Your task to perform on an android device: open app "Adobe Acrobat Reader" (install if not already installed) Image 0: 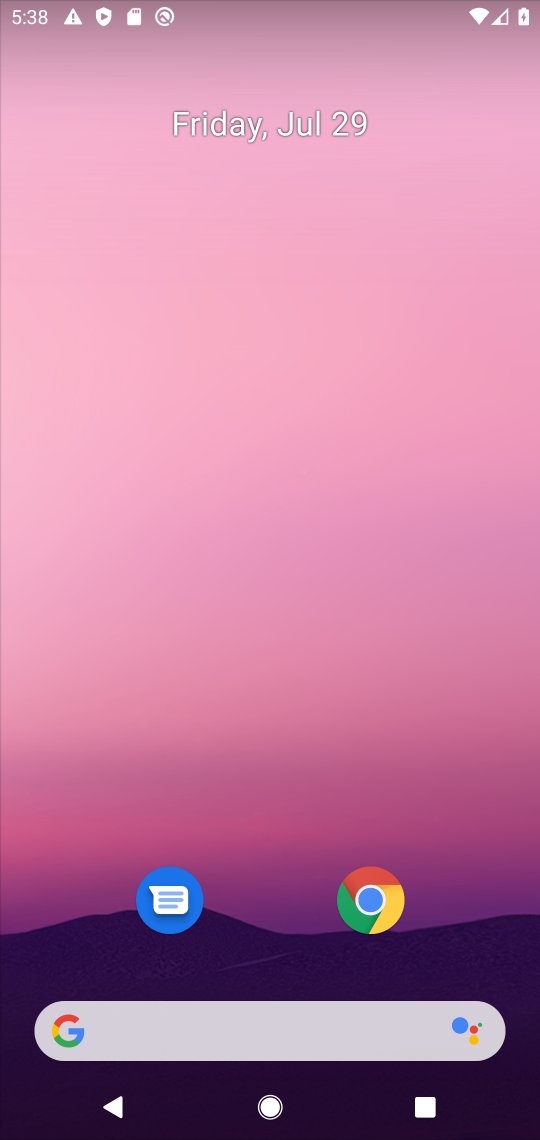
Step 0: drag from (299, 1009) to (271, 111)
Your task to perform on an android device: open app "Adobe Acrobat Reader" (install if not already installed) Image 1: 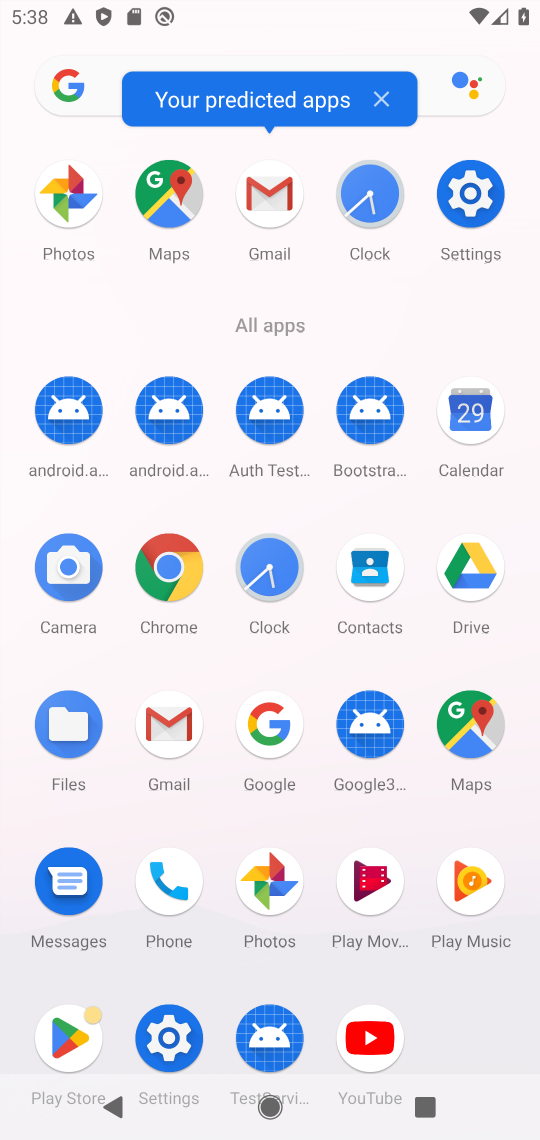
Step 1: click (56, 1025)
Your task to perform on an android device: open app "Adobe Acrobat Reader" (install if not already installed) Image 2: 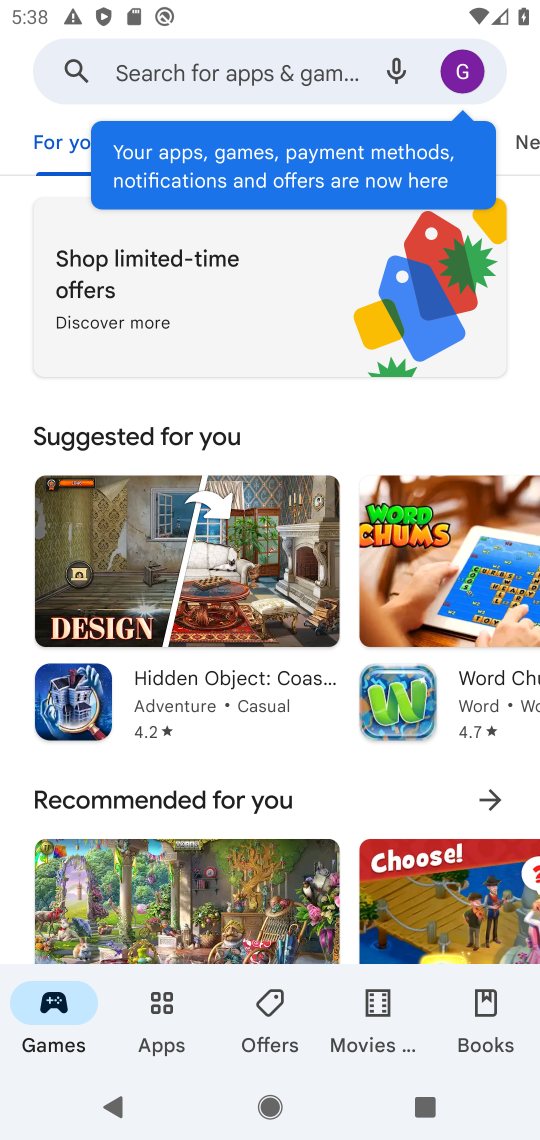
Step 2: click (291, 58)
Your task to perform on an android device: open app "Adobe Acrobat Reader" (install if not already installed) Image 3: 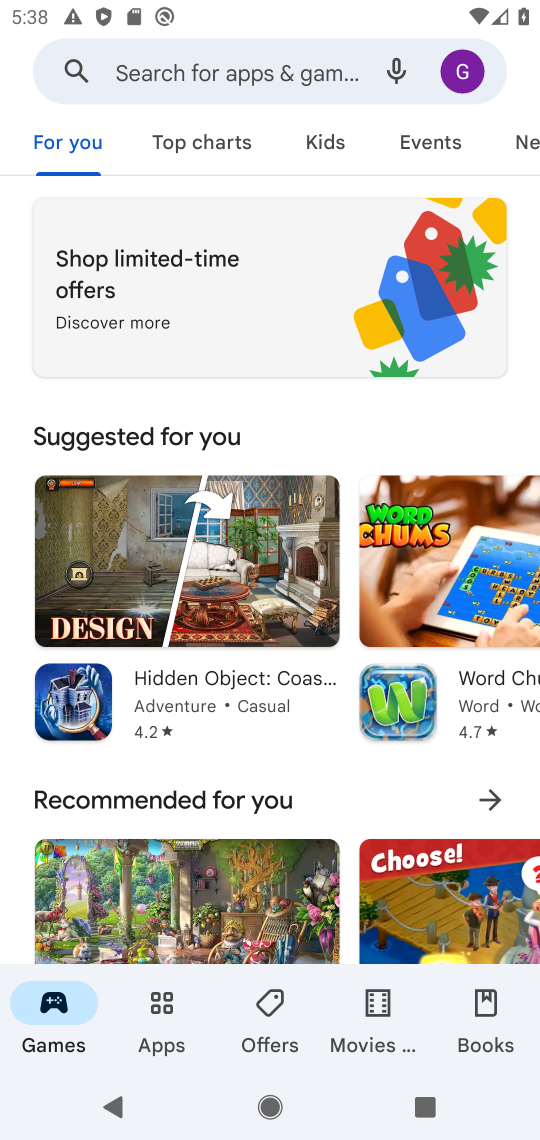
Step 3: click (289, 66)
Your task to perform on an android device: open app "Adobe Acrobat Reader" (install if not already installed) Image 4: 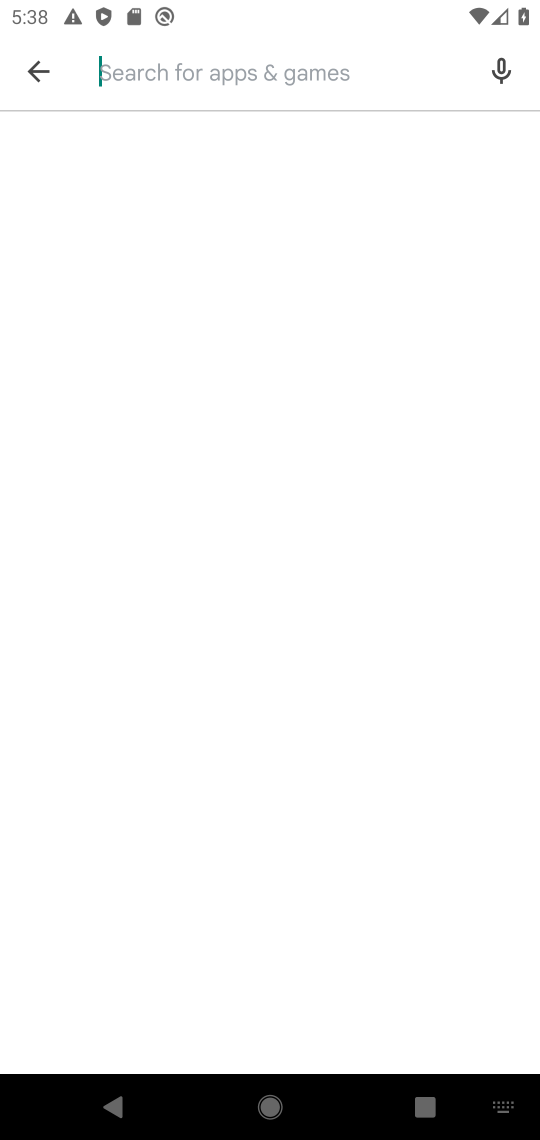
Step 4: type "adobe acrobat reader"
Your task to perform on an android device: open app "Adobe Acrobat Reader" (install if not already installed) Image 5: 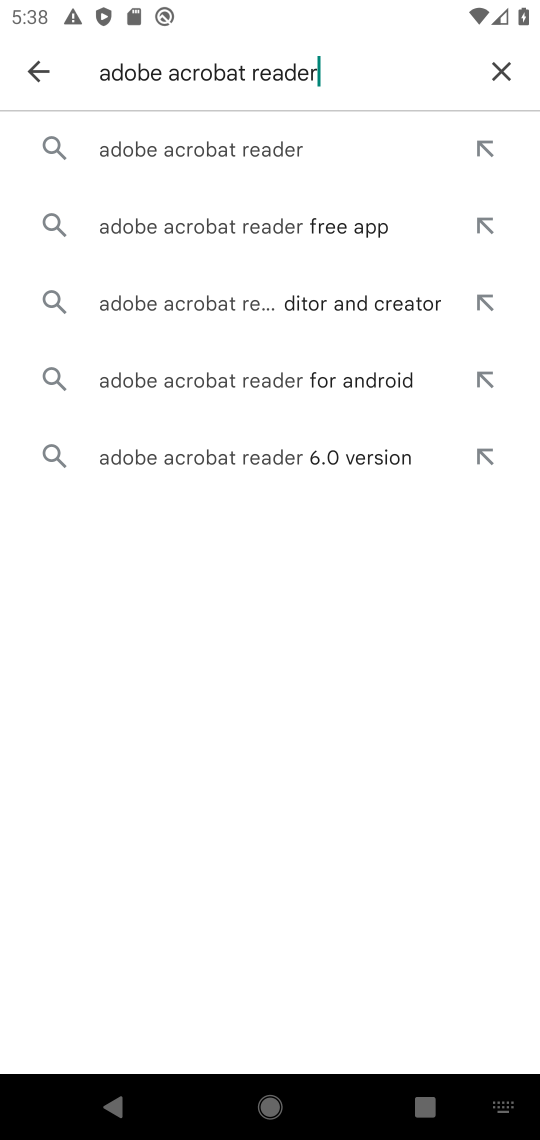
Step 5: click (295, 146)
Your task to perform on an android device: open app "Adobe Acrobat Reader" (install if not already installed) Image 6: 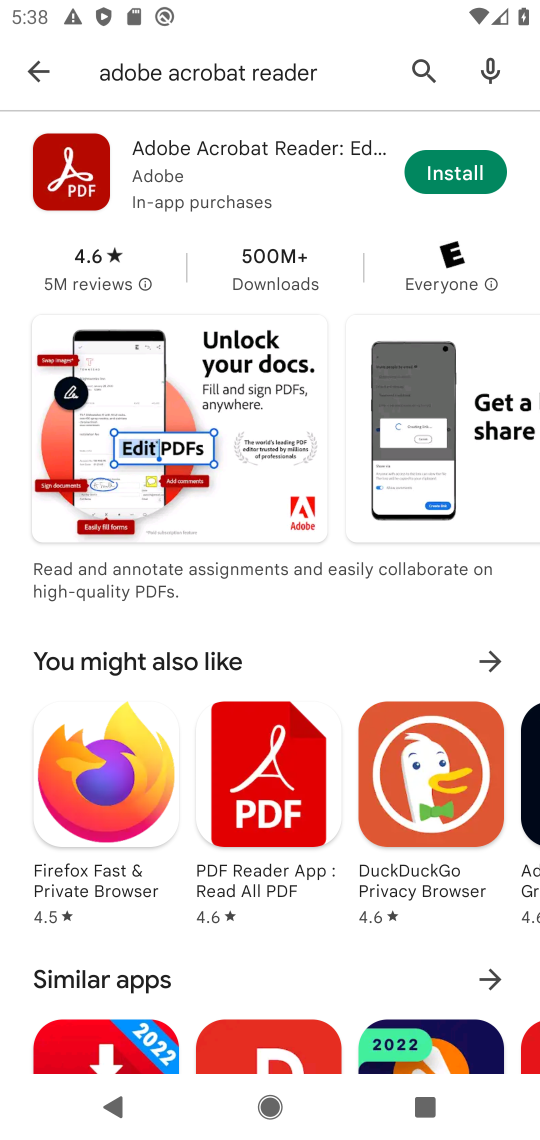
Step 6: click (474, 163)
Your task to perform on an android device: open app "Adobe Acrobat Reader" (install if not already installed) Image 7: 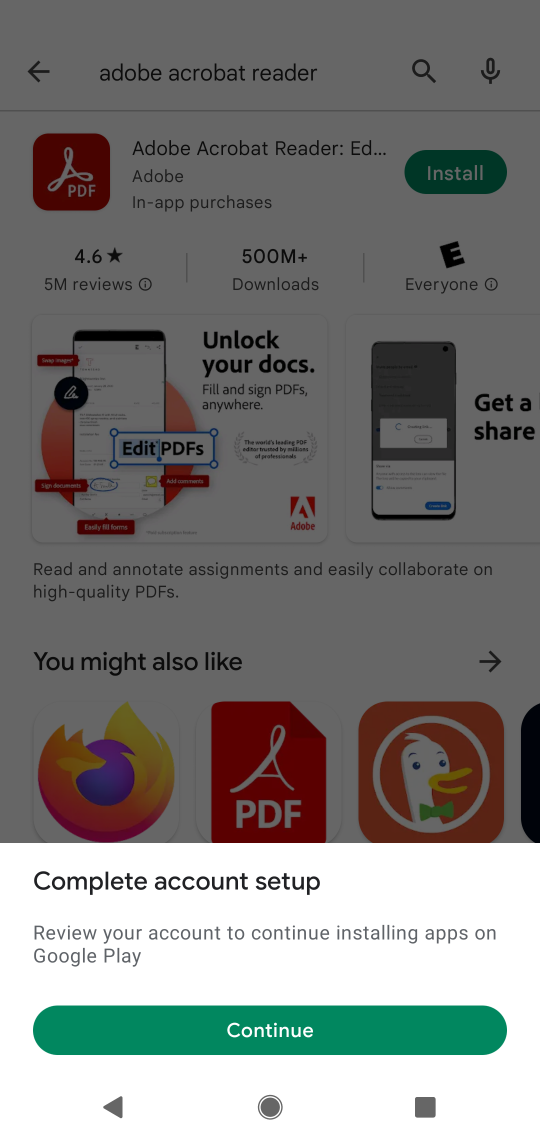
Step 7: click (342, 1030)
Your task to perform on an android device: open app "Adobe Acrobat Reader" (install if not already installed) Image 8: 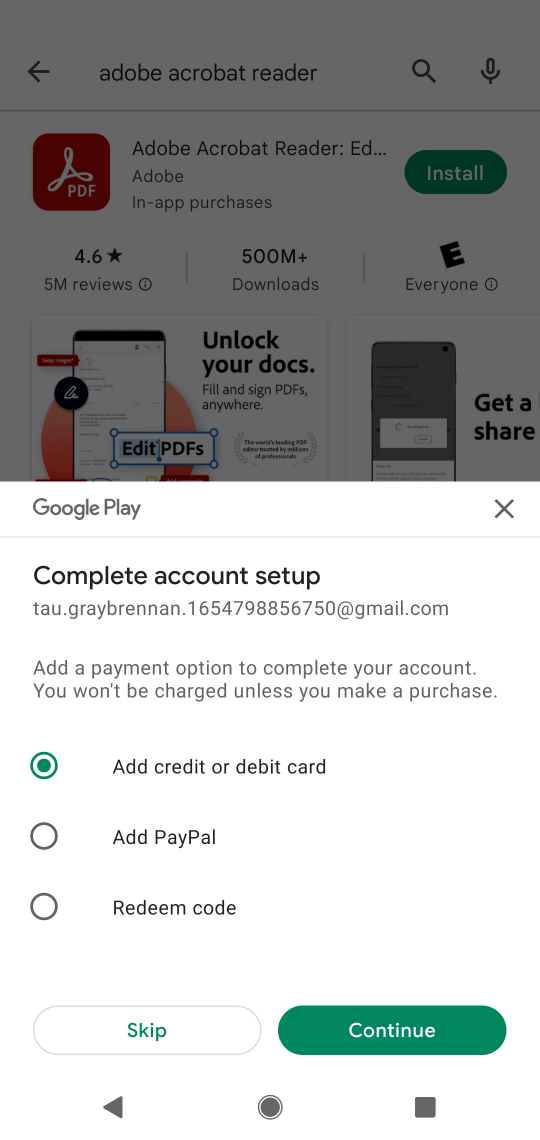
Step 8: click (191, 1028)
Your task to perform on an android device: open app "Adobe Acrobat Reader" (install if not already installed) Image 9: 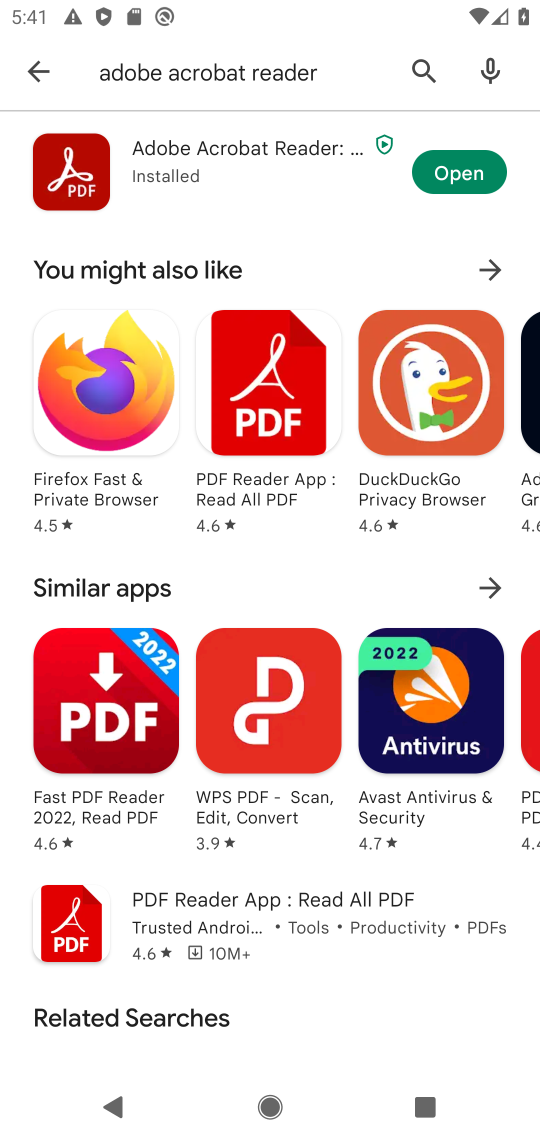
Step 9: click (474, 166)
Your task to perform on an android device: open app "Adobe Acrobat Reader" (install if not already installed) Image 10: 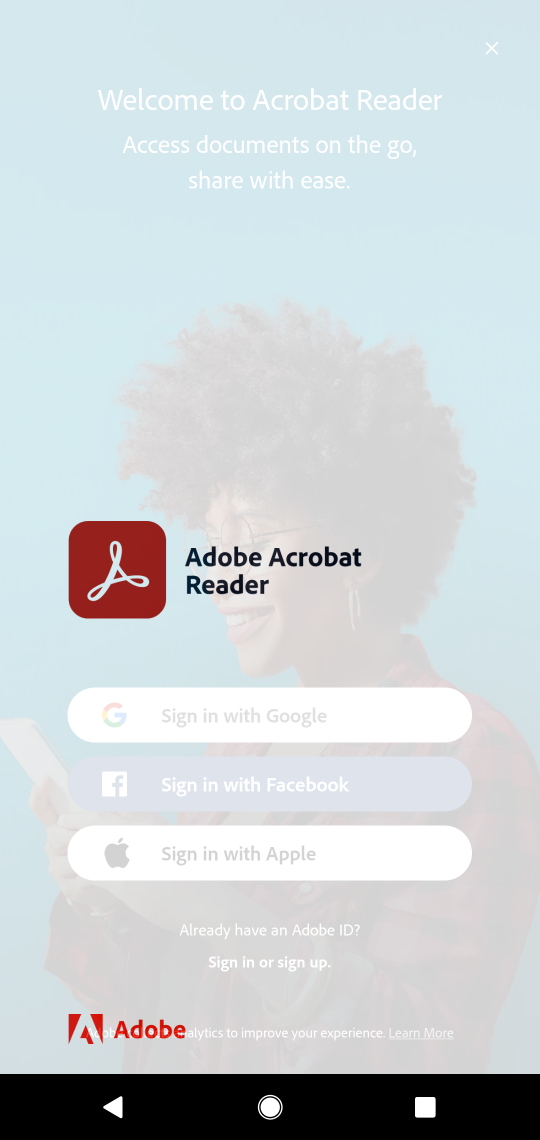
Step 10: task complete